Your task to perform on an android device: Go to ESPN.com Image 0: 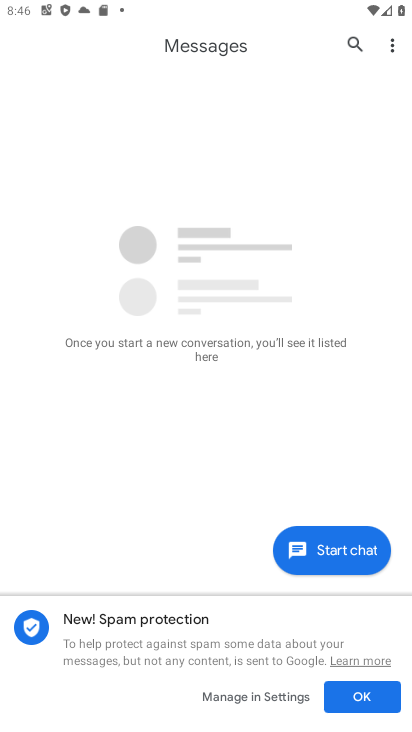
Step 0: press home button
Your task to perform on an android device: Go to ESPN.com Image 1: 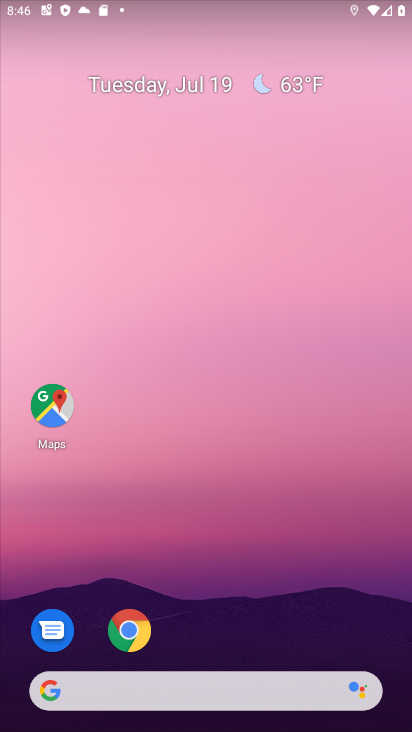
Step 1: click (131, 630)
Your task to perform on an android device: Go to ESPN.com Image 2: 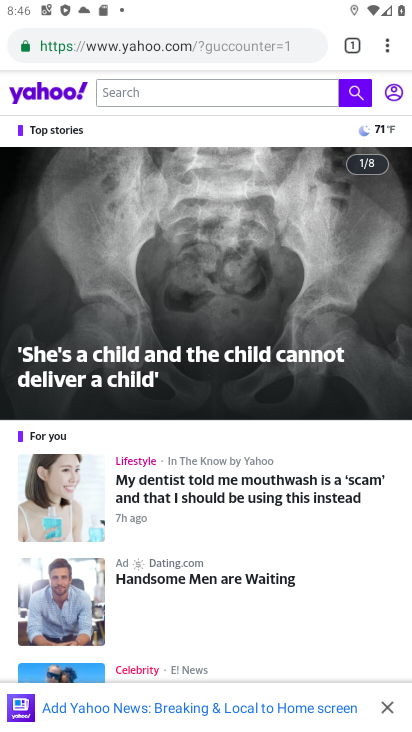
Step 2: click (291, 38)
Your task to perform on an android device: Go to ESPN.com Image 3: 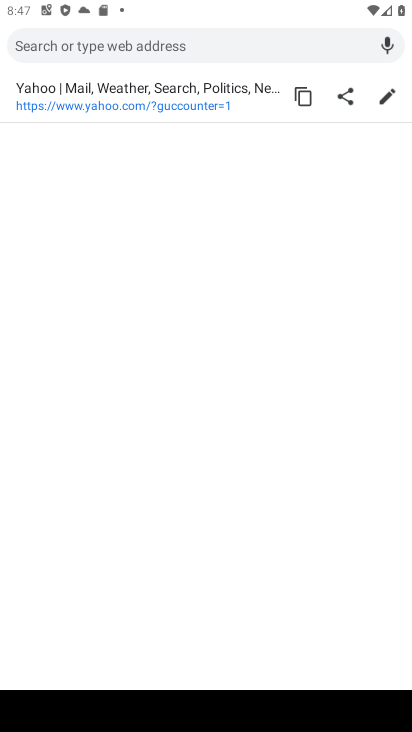
Step 3: type "ESPN.com"
Your task to perform on an android device: Go to ESPN.com Image 4: 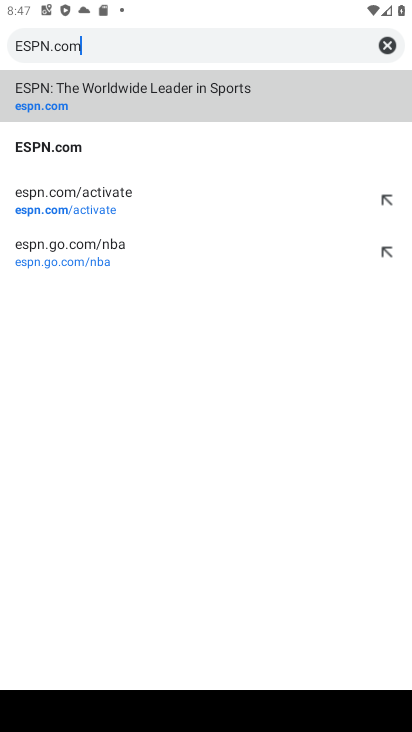
Step 4: click (82, 139)
Your task to perform on an android device: Go to ESPN.com Image 5: 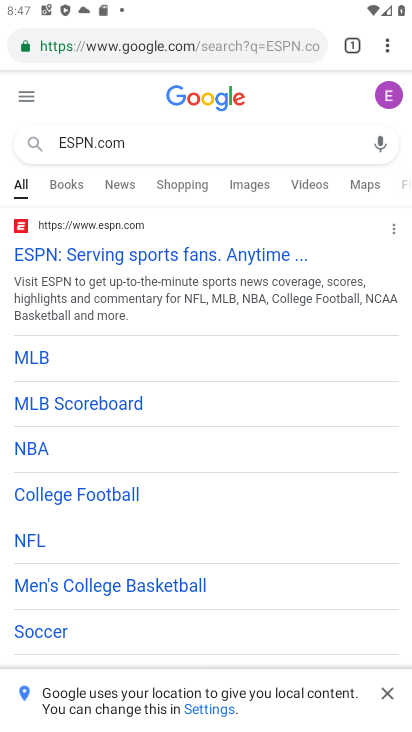
Step 5: click (154, 255)
Your task to perform on an android device: Go to ESPN.com Image 6: 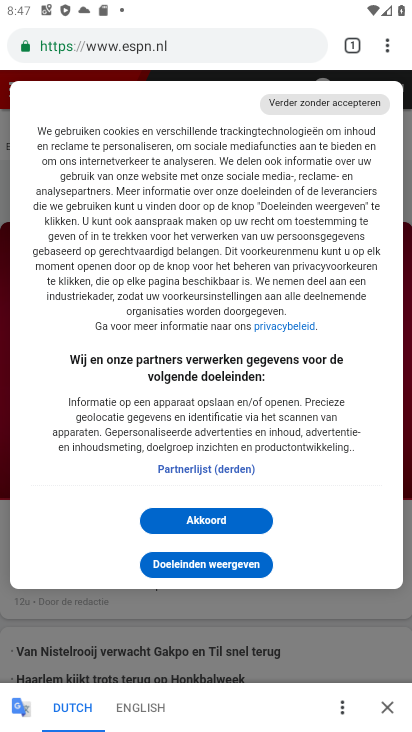
Step 6: click (218, 514)
Your task to perform on an android device: Go to ESPN.com Image 7: 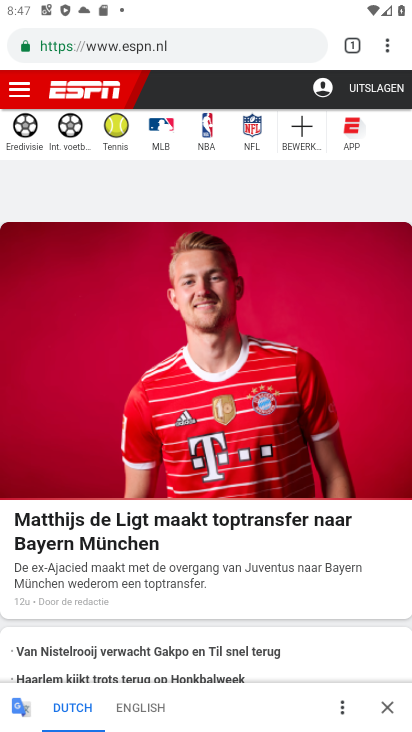
Step 7: task complete